Your task to perform on an android device: open chrome privacy settings Image 0: 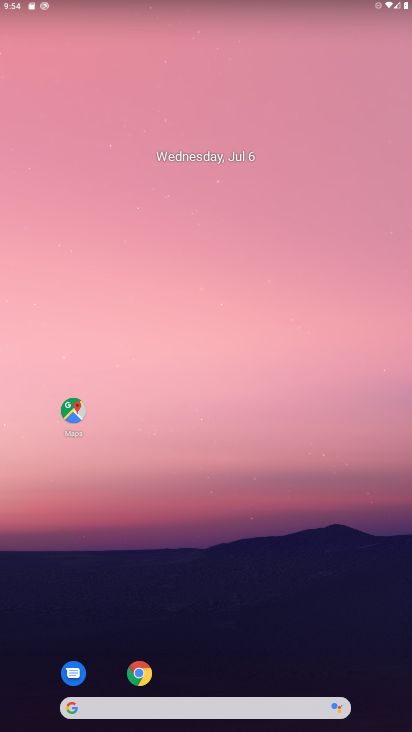
Step 0: click (143, 683)
Your task to perform on an android device: open chrome privacy settings Image 1: 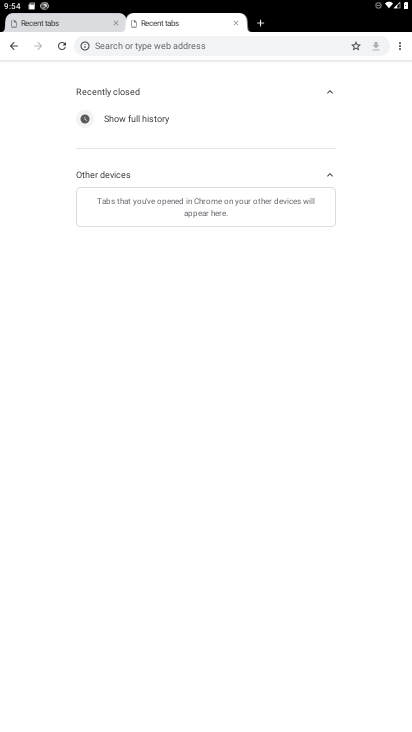
Step 1: click (398, 51)
Your task to perform on an android device: open chrome privacy settings Image 2: 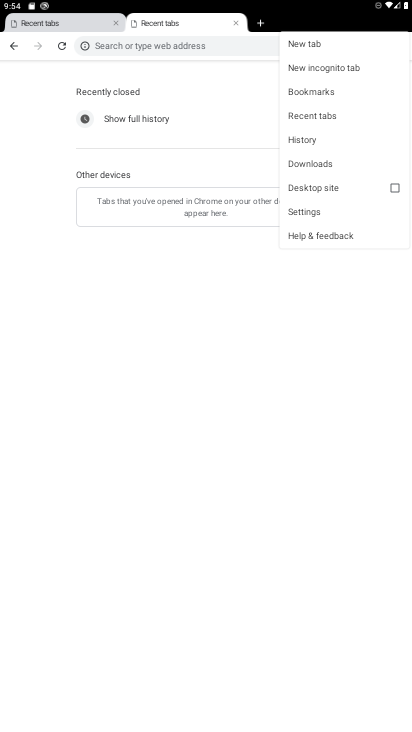
Step 2: click (310, 201)
Your task to perform on an android device: open chrome privacy settings Image 3: 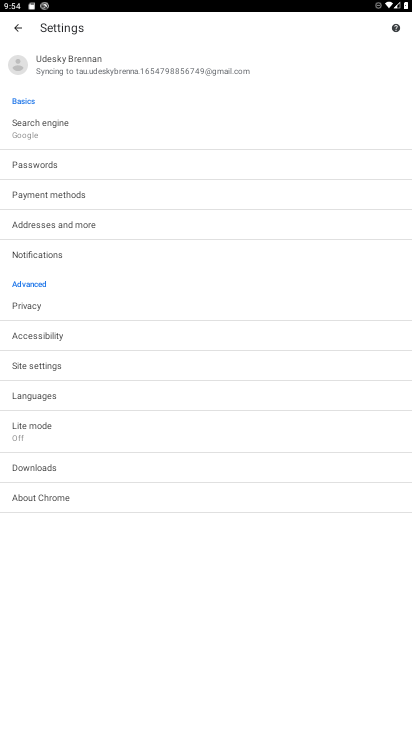
Step 3: click (86, 308)
Your task to perform on an android device: open chrome privacy settings Image 4: 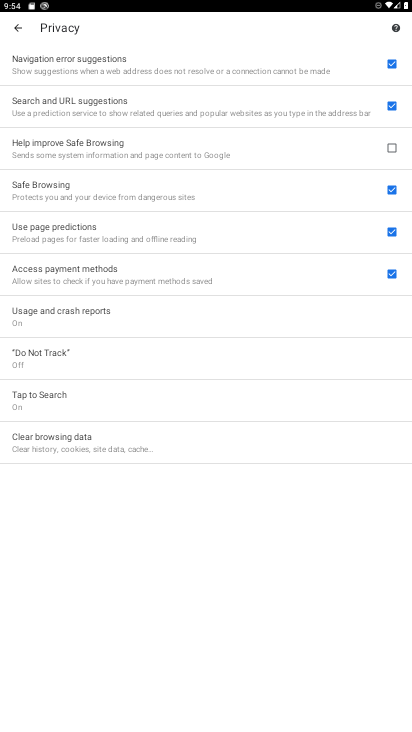
Step 4: task complete